Your task to perform on an android device: Go to sound settings Image 0: 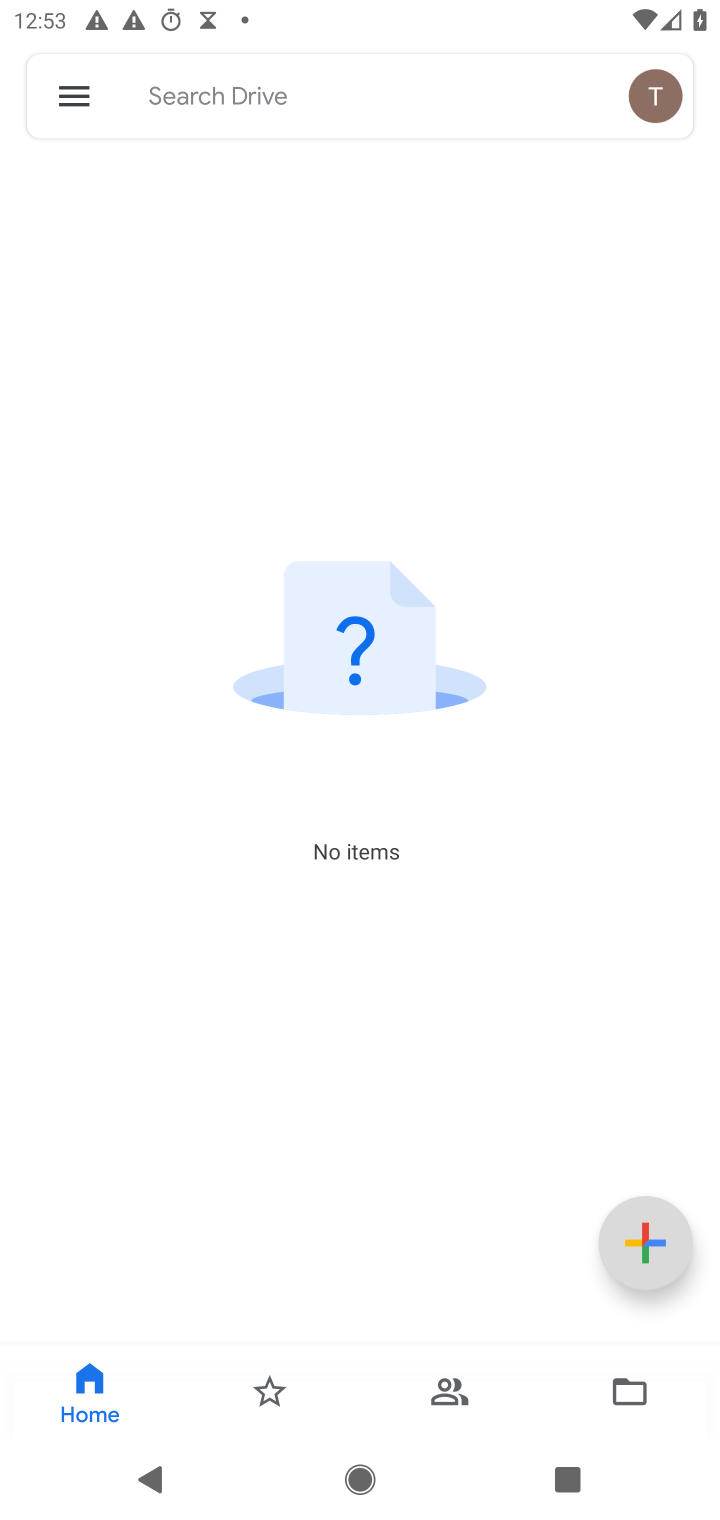
Step 0: press home button
Your task to perform on an android device: Go to sound settings Image 1: 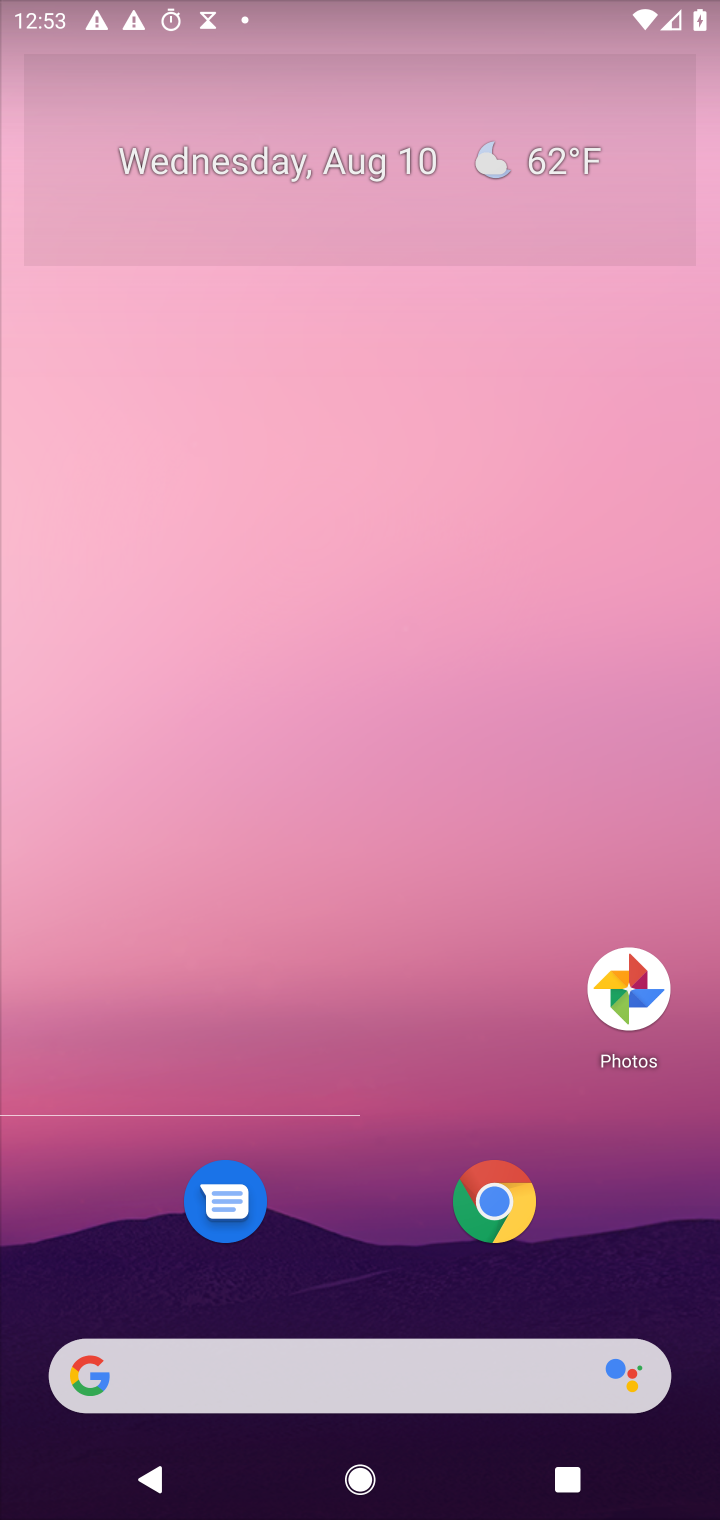
Step 1: drag from (357, 790) to (385, 2)
Your task to perform on an android device: Go to sound settings Image 2: 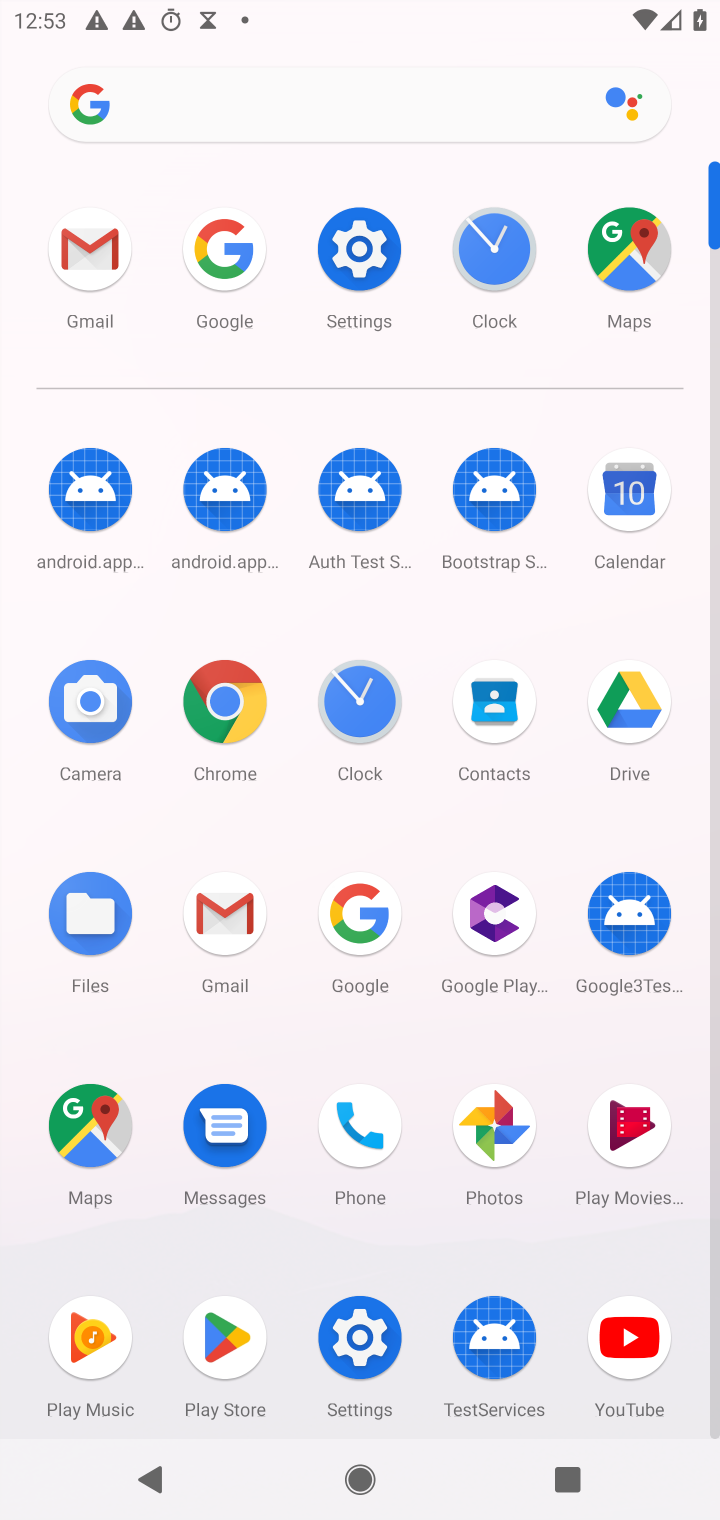
Step 2: click (360, 225)
Your task to perform on an android device: Go to sound settings Image 3: 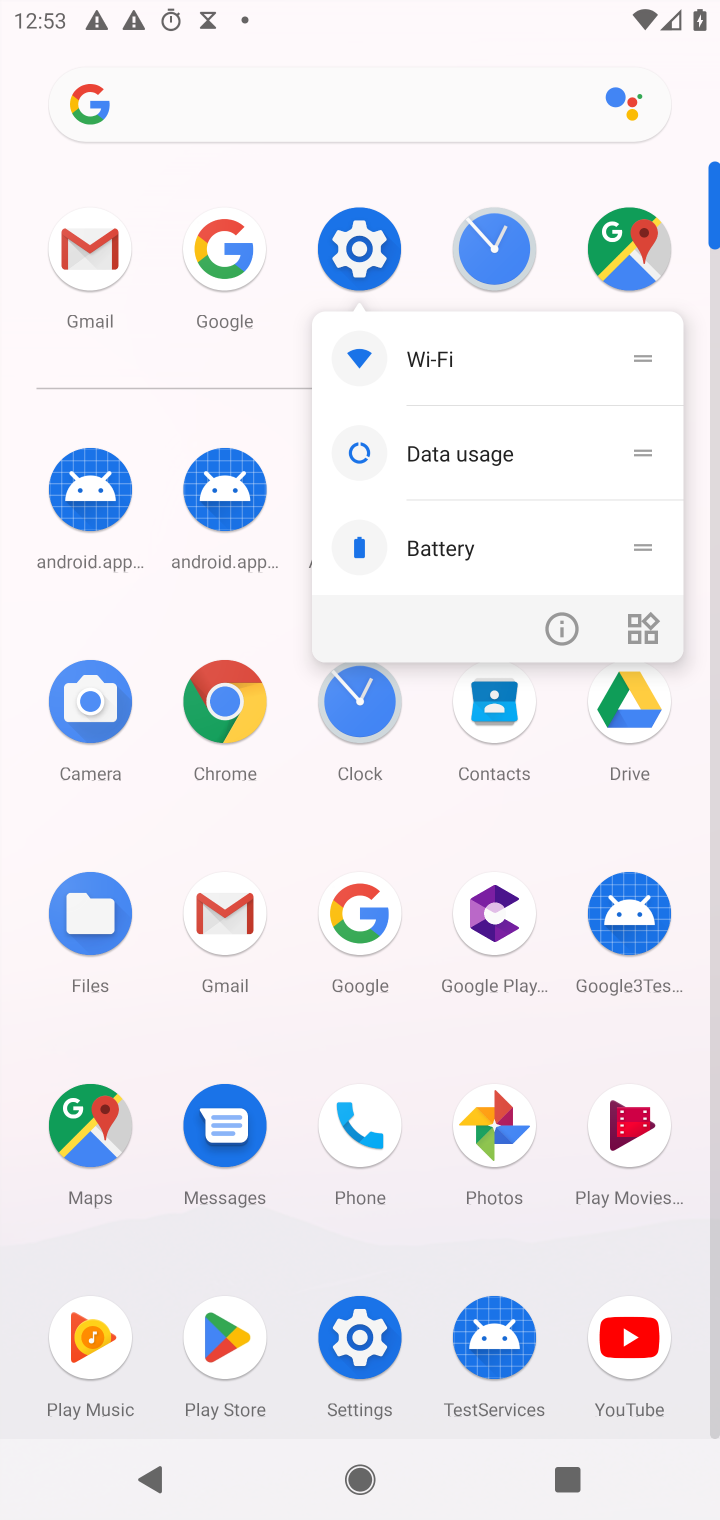
Step 3: click (360, 225)
Your task to perform on an android device: Go to sound settings Image 4: 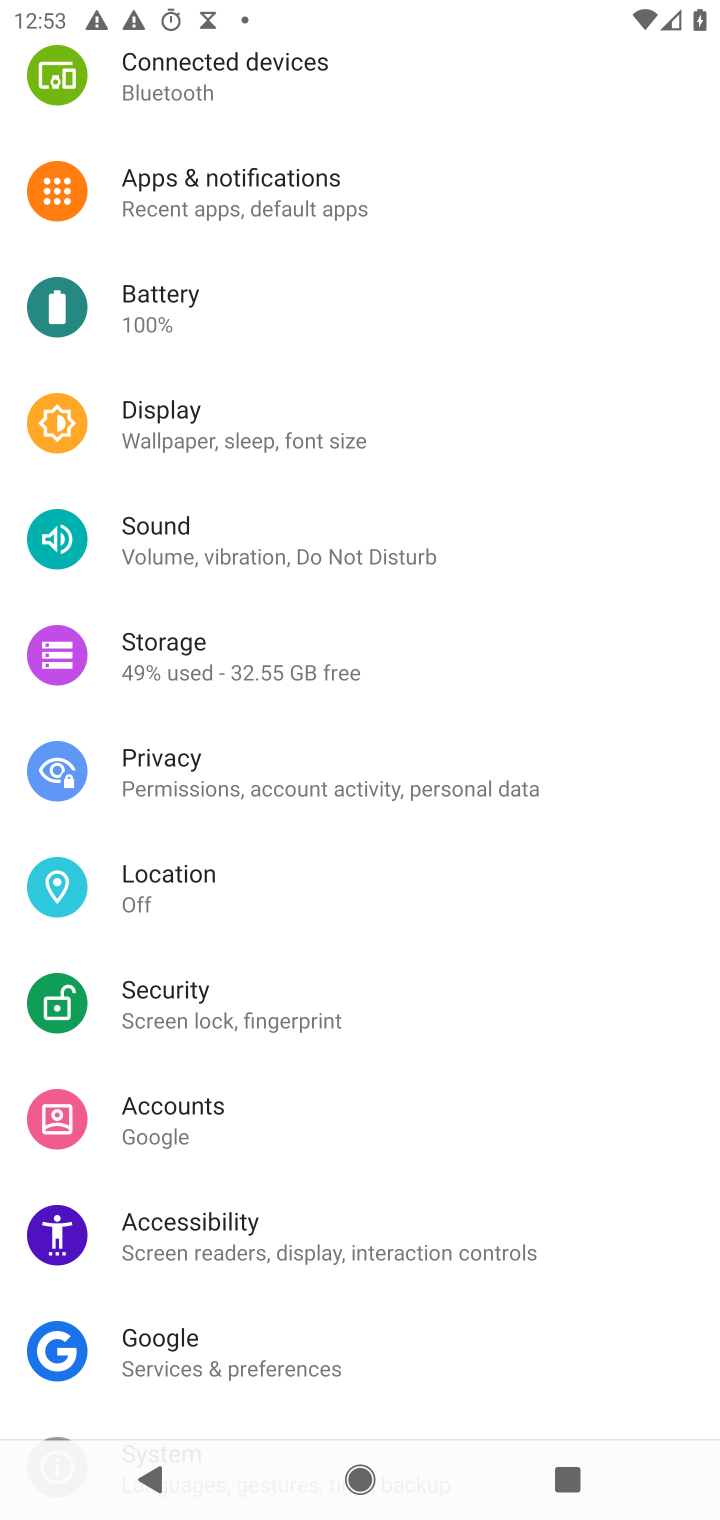
Step 4: click (198, 551)
Your task to perform on an android device: Go to sound settings Image 5: 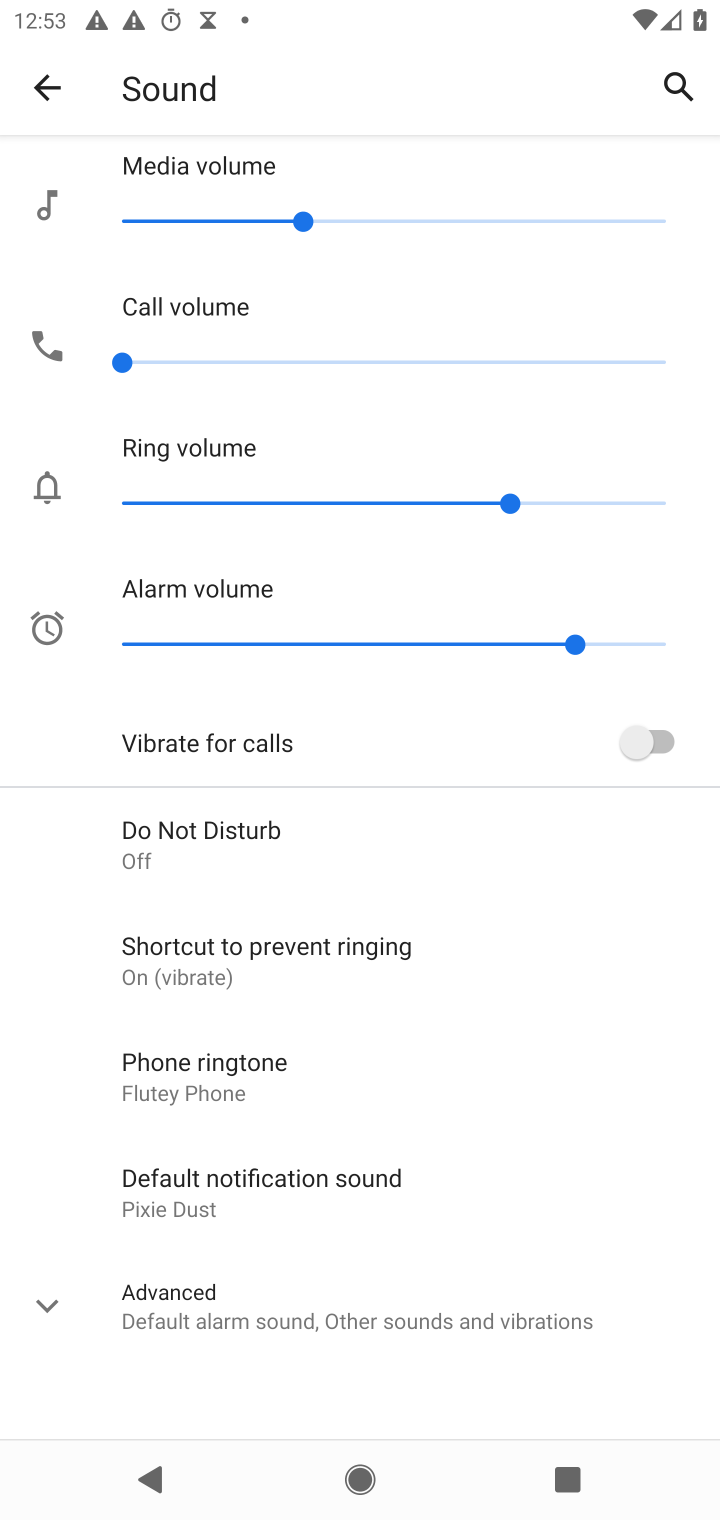
Step 5: task complete